Your task to perform on an android device: turn smart compose on in the gmail app Image 0: 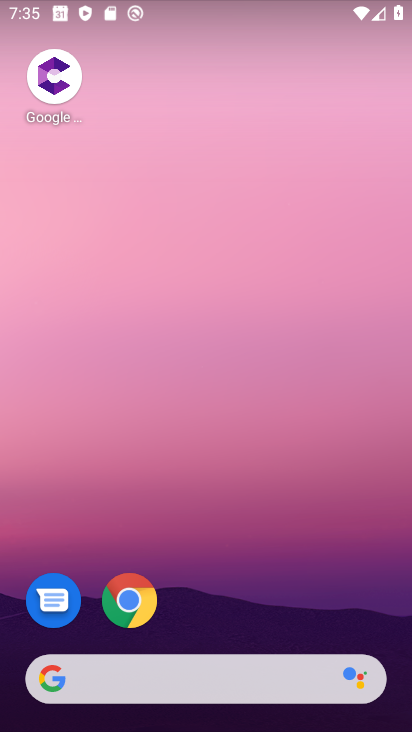
Step 0: drag from (250, 548) to (257, 20)
Your task to perform on an android device: turn smart compose on in the gmail app Image 1: 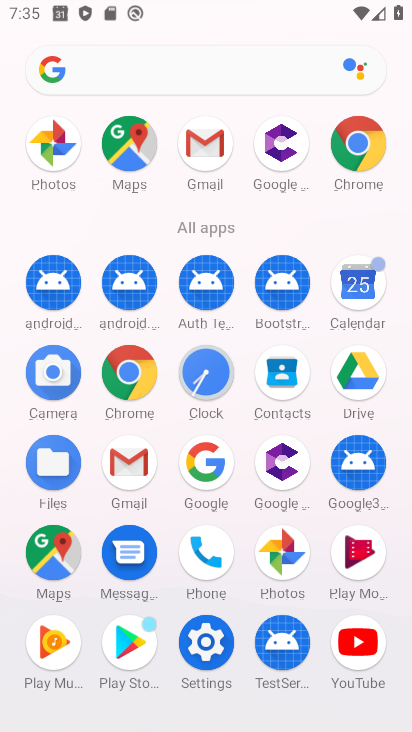
Step 1: click (196, 119)
Your task to perform on an android device: turn smart compose on in the gmail app Image 2: 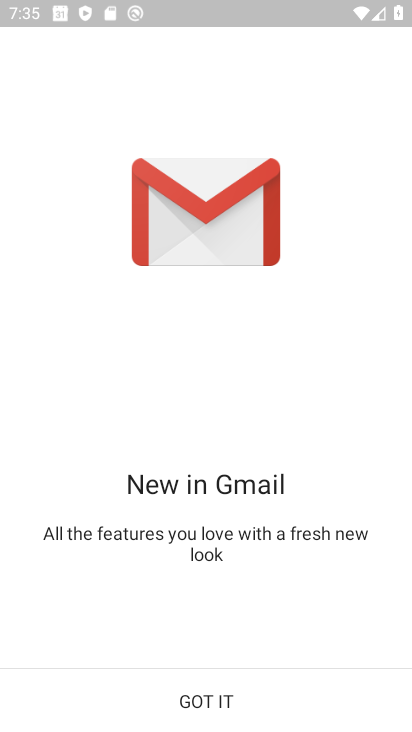
Step 2: click (229, 684)
Your task to perform on an android device: turn smart compose on in the gmail app Image 3: 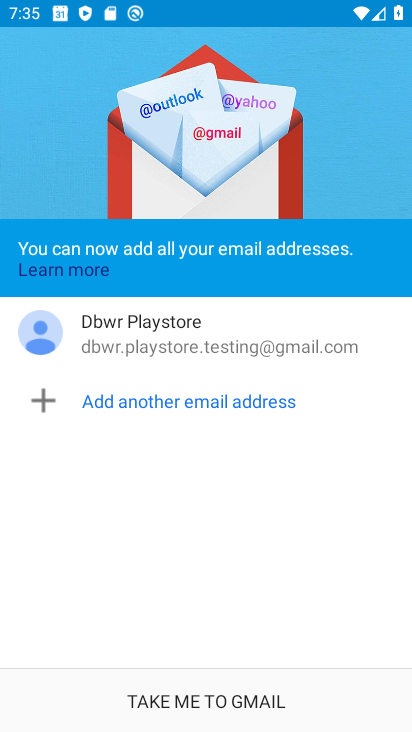
Step 3: click (187, 334)
Your task to perform on an android device: turn smart compose on in the gmail app Image 4: 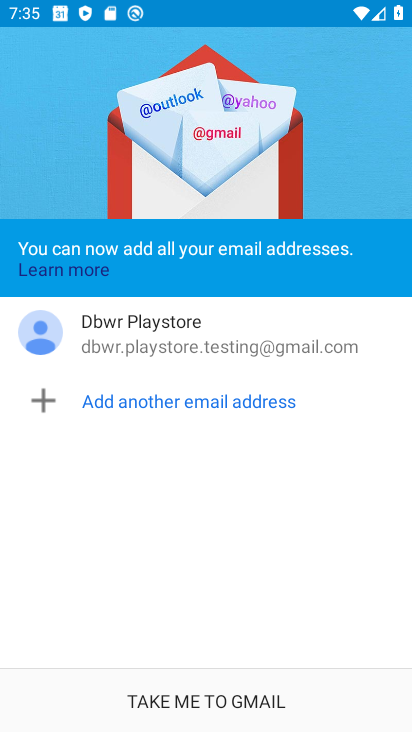
Step 4: click (209, 324)
Your task to perform on an android device: turn smart compose on in the gmail app Image 5: 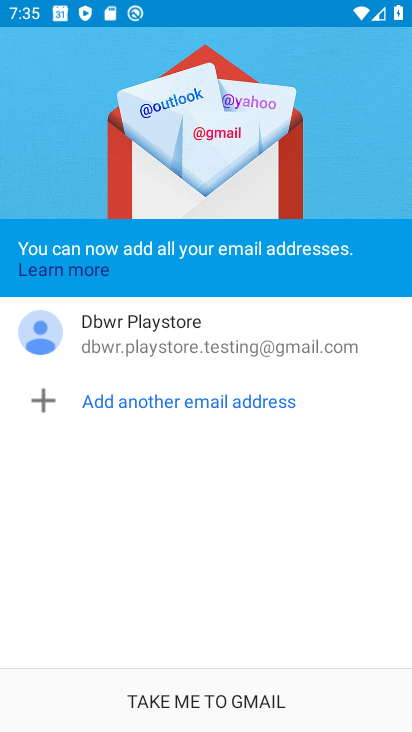
Step 5: click (208, 323)
Your task to perform on an android device: turn smart compose on in the gmail app Image 6: 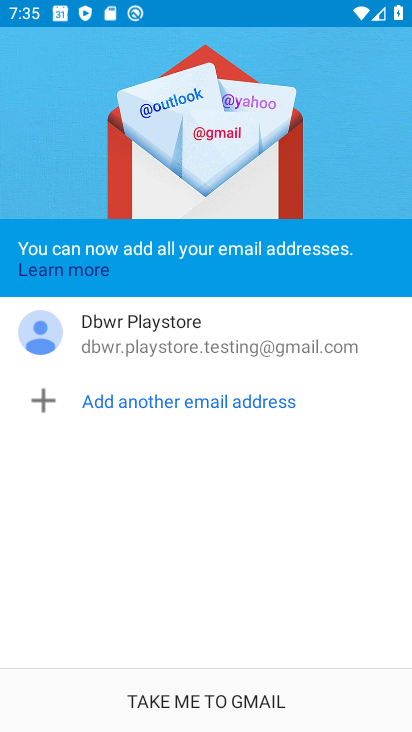
Step 6: click (249, 703)
Your task to perform on an android device: turn smart compose on in the gmail app Image 7: 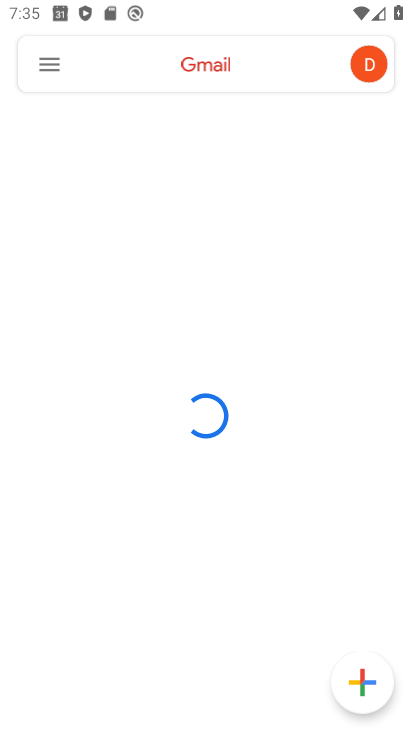
Step 7: click (33, 71)
Your task to perform on an android device: turn smart compose on in the gmail app Image 8: 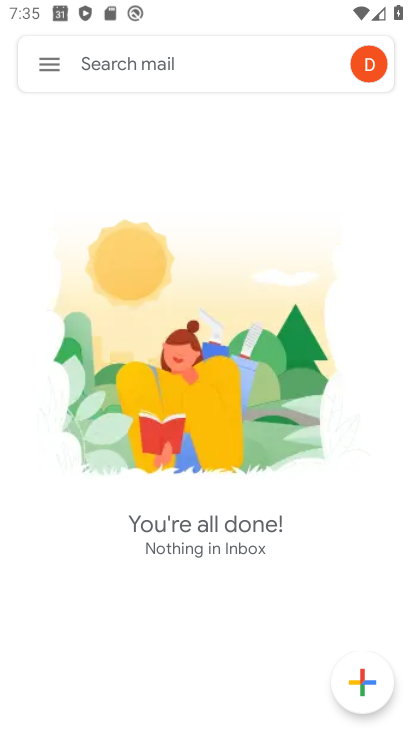
Step 8: click (38, 62)
Your task to perform on an android device: turn smart compose on in the gmail app Image 9: 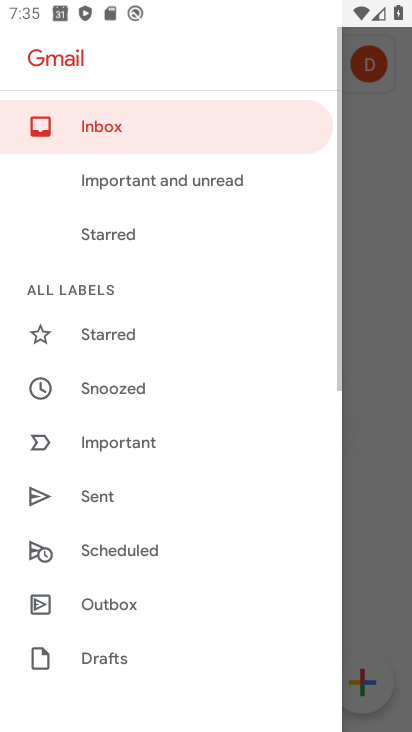
Step 9: drag from (152, 642) to (159, 167)
Your task to perform on an android device: turn smart compose on in the gmail app Image 10: 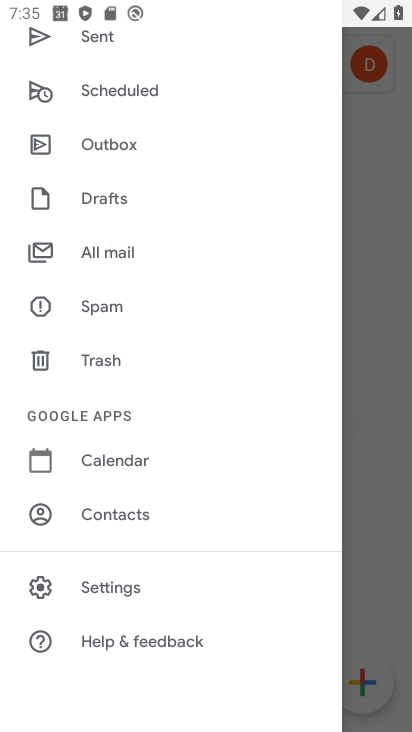
Step 10: click (111, 581)
Your task to perform on an android device: turn smart compose on in the gmail app Image 11: 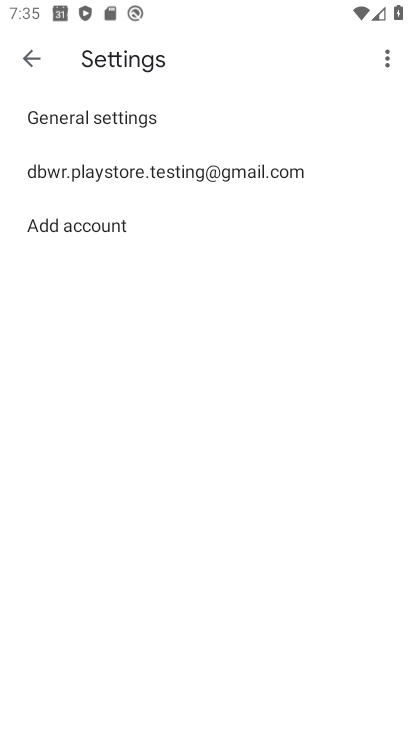
Step 11: click (163, 169)
Your task to perform on an android device: turn smart compose on in the gmail app Image 12: 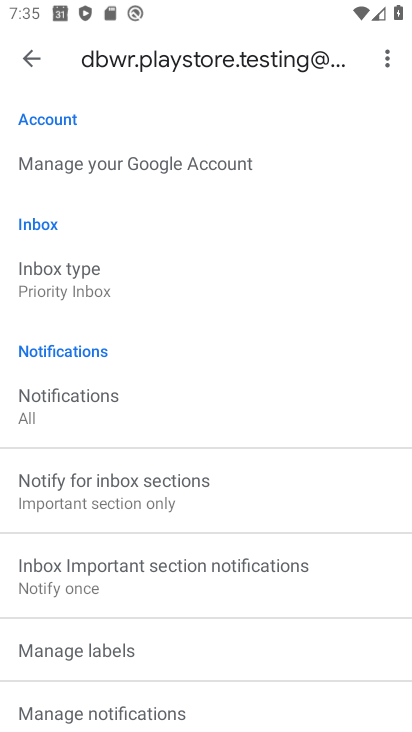
Step 12: task complete